Your task to perform on an android device: change notification settings in the gmail app Image 0: 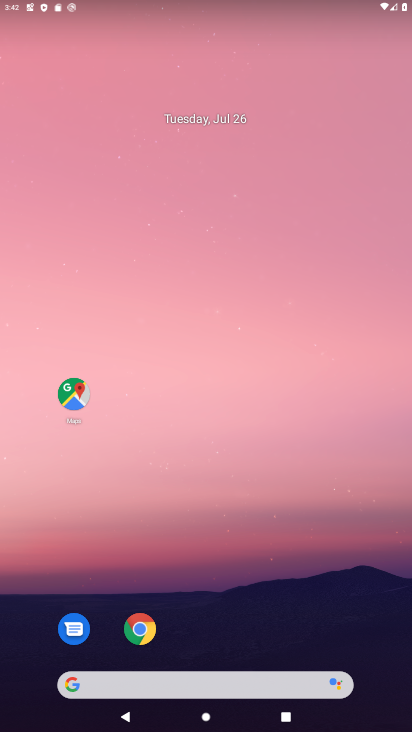
Step 0: drag from (268, 596) to (206, 183)
Your task to perform on an android device: change notification settings in the gmail app Image 1: 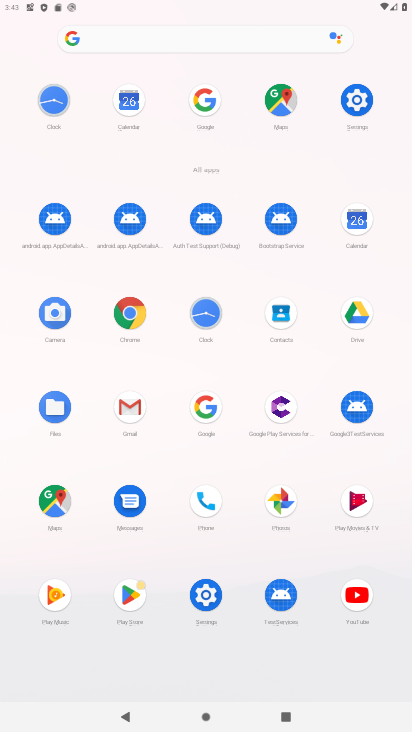
Step 1: click (132, 406)
Your task to perform on an android device: change notification settings in the gmail app Image 2: 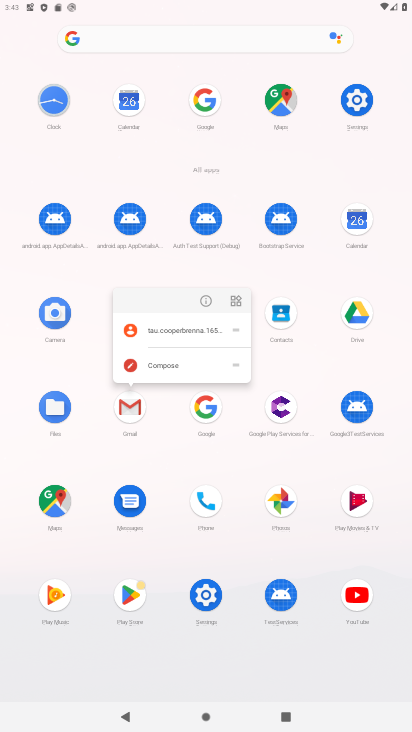
Step 2: click (204, 303)
Your task to perform on an android device: change notification settings in the gmail app Image 3: 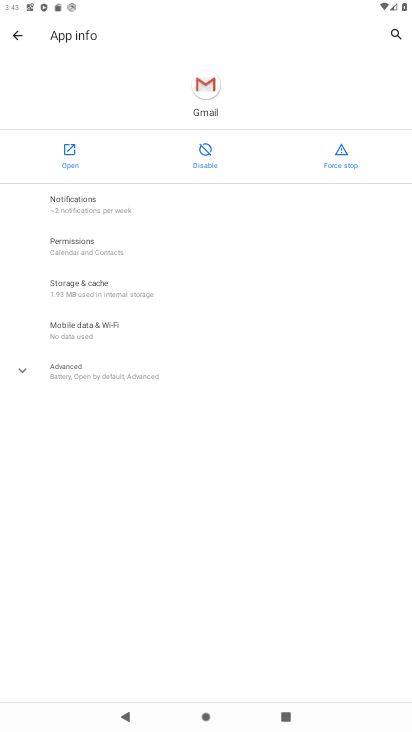
Step 3: click (109, 198)
Your task to perform on an android device: change notification settings in the gmail app Image 4: 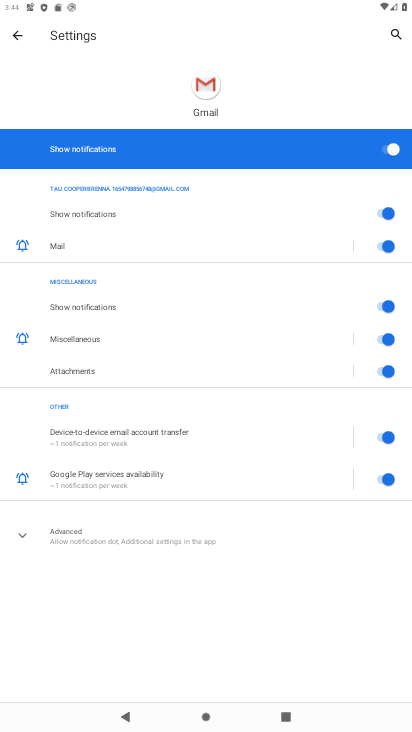
Step 4: click (394, 144)
Your task to perform on an android device: change notification settings in the gmail app Image 5: 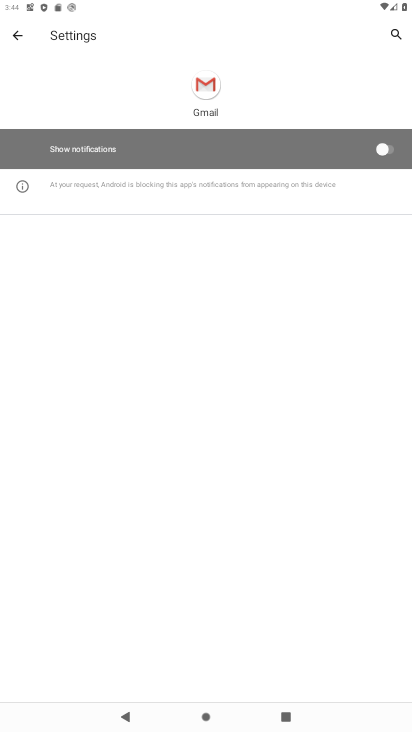
Step 5: task complete